Your task to perform on an android device: search for starred emails in the gmail app Image 0: 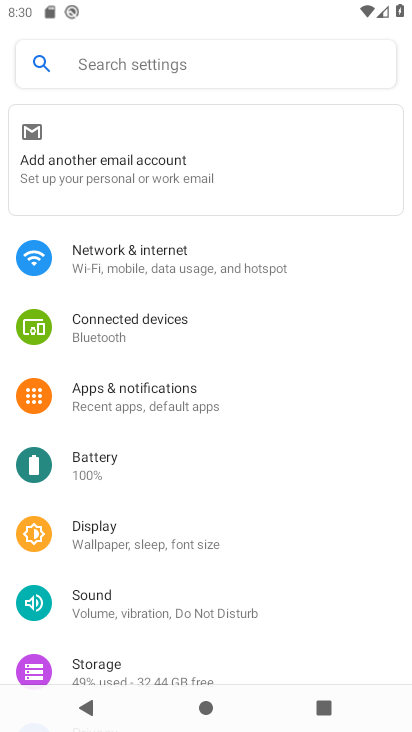
Step 0: press home button
Your task to perform on an android device: search for starred emails in the gmail app Image 1: 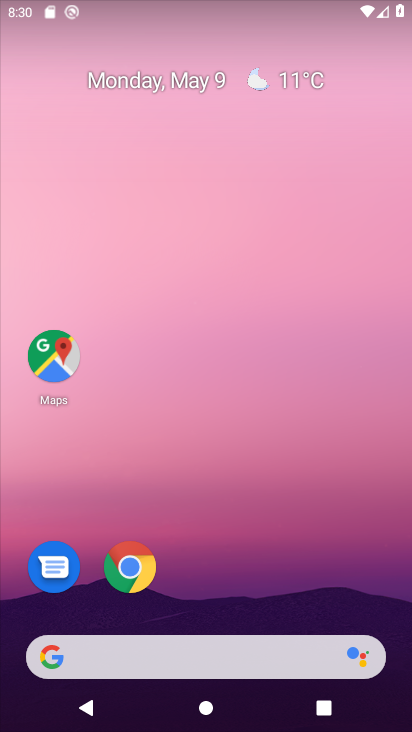
Step 1: drag from (234, 532) to (258, 19)
Your task to perform on an android device: search for starred emails in the gmail app Image 2: 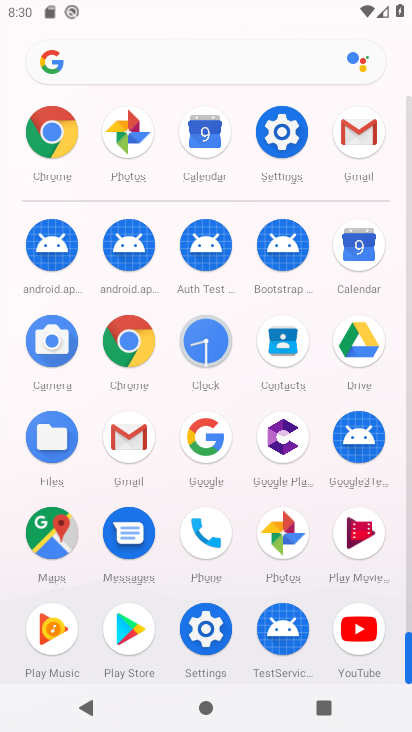
Step 2: click (345, 128)
Your task to perform on an android device: search for starred emails in the gmail app Image 3: 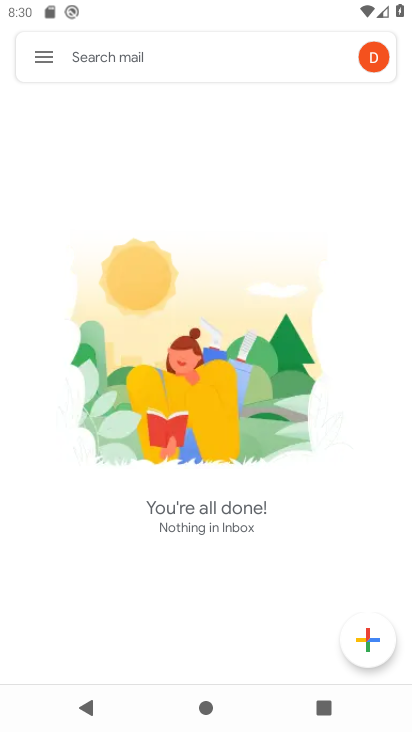
Step 3: click (46, 54)
Your task to perform on an android device: search for starred emails in the gmail app Image 4: 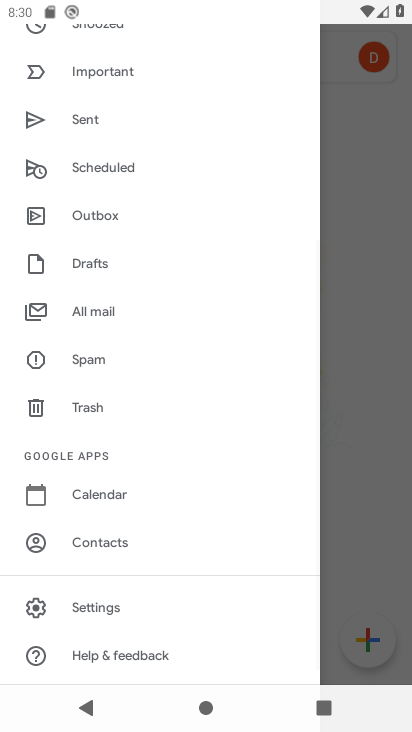
Step 4: drag from (151, 185) to (213, 529)
Your task to perform on an android device: search for starred emails in the gmail app Image 5: 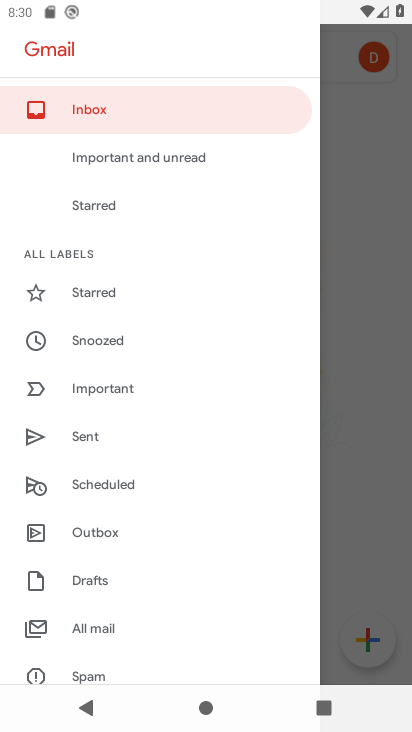
Step 5: click (121, 288)
Your task to perform on an android device: search for starred emails in the gmail app Image 6: 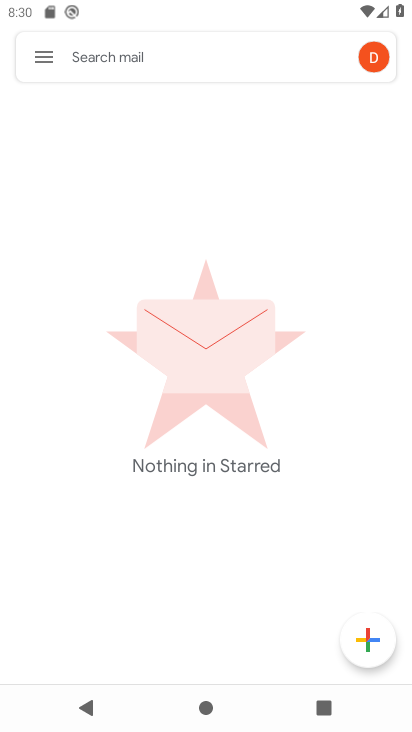
Step 6: task complete